Your task to perform on an android device: turn on wifi Image 0: 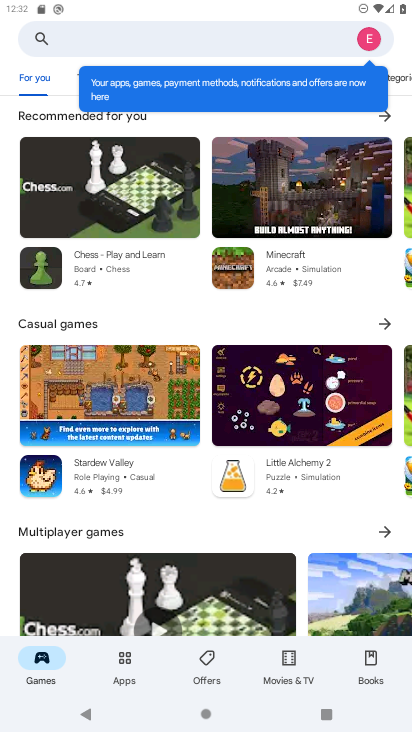
Step 0: press home button
Your task to perform on an android device: turn on wifi Image 1: 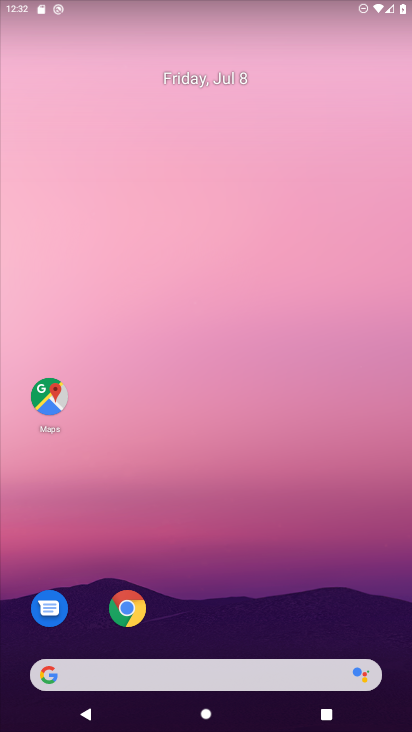
Step 1: drag from (234, 727) to (206, 89)
Your task to perform on an android device: turn on wifi Image 2: 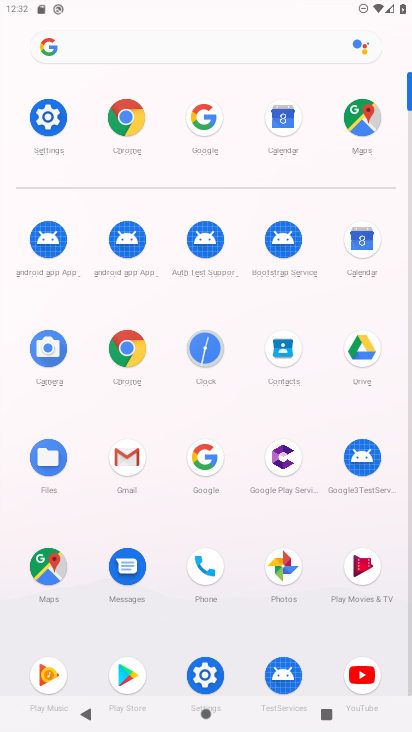
Step 2: click (41, 117)
Your task to perform on an android device: turn on wifi Image 3: 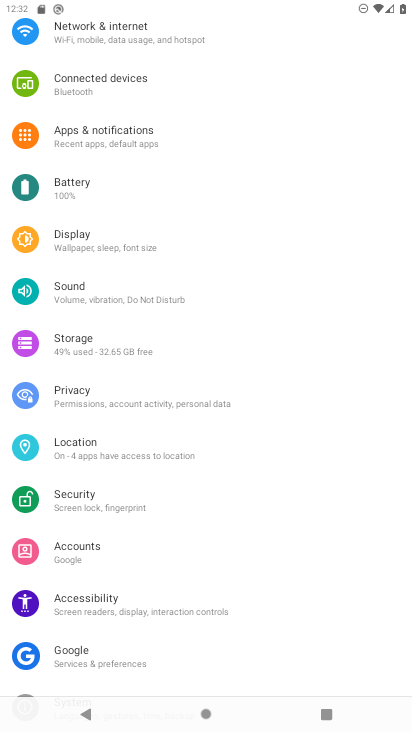
Step 3: drag from (149, 97) to (151, 499)
Your task to perform on an android device: turn on wifi Image 4: 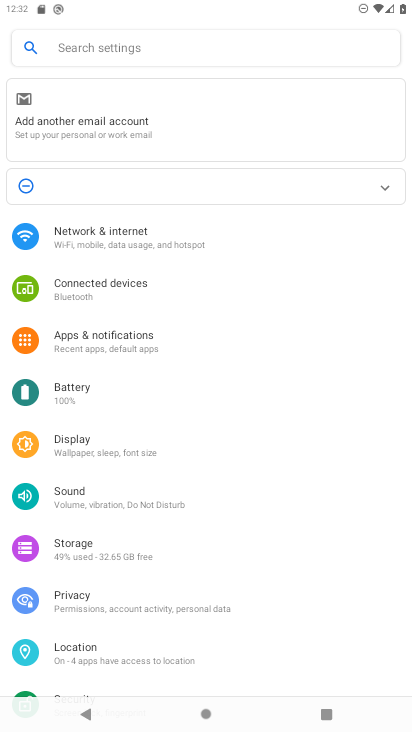
Step 4: click (82, 232)
Your task to perform on an android device: turn on wifi Image 5: 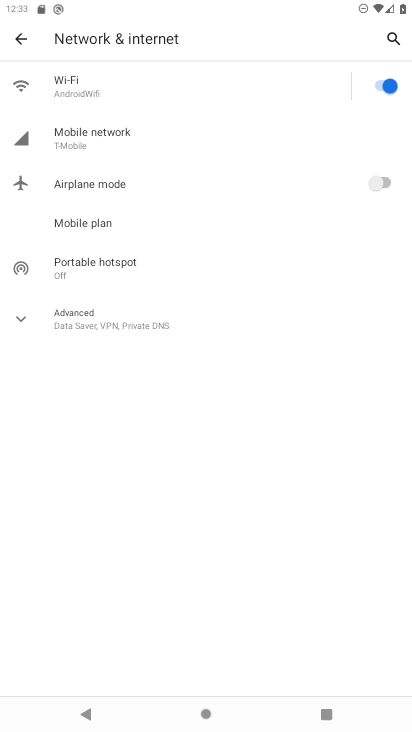
Step 5: task complete